Your task to perform on an android device: Go to battery settings Image 0: 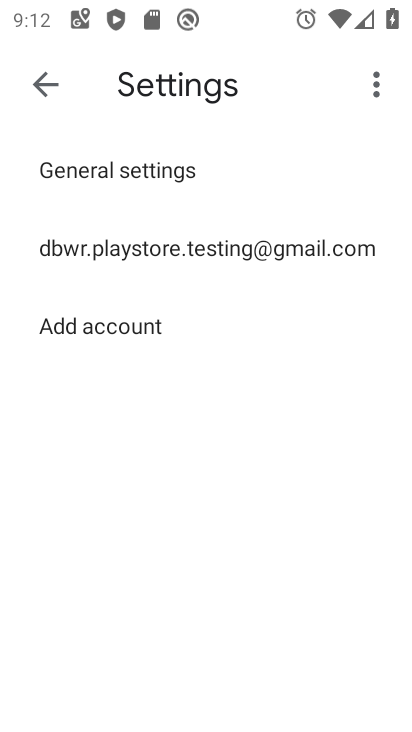
Step 0: press home button
Your task to perform on an android device: Go to battery settings Image 1: 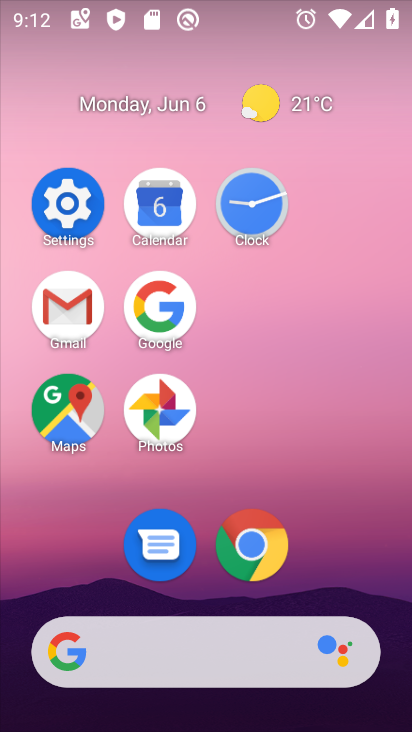
Step 1: click (66, 229)
Your task to perform on an android device: Go to battery settings Image 2: 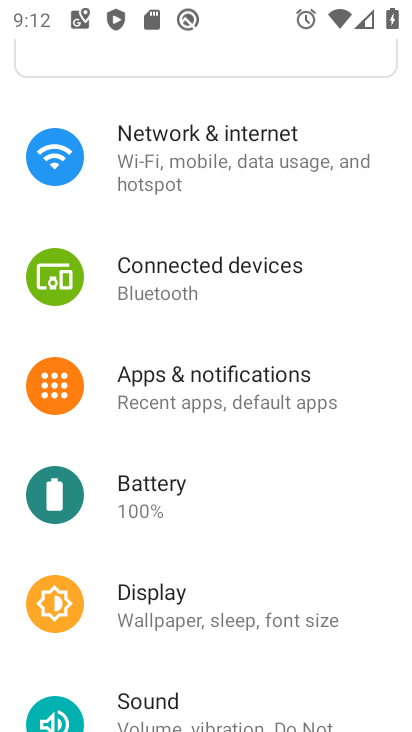
Step 2: click (208, 495)
Your task to perform on an android device: Go to battery settings Image 3: 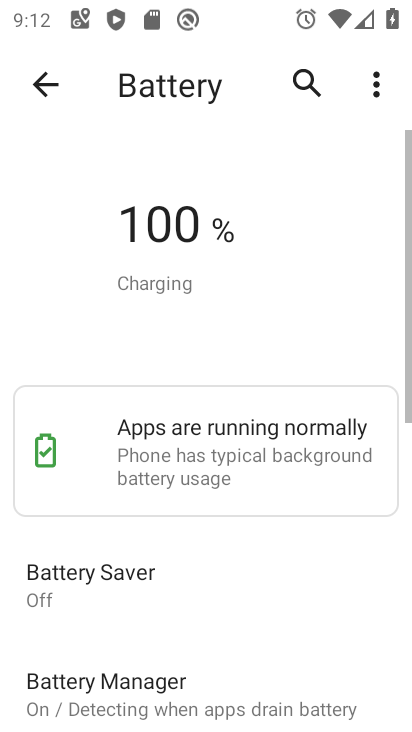
Step 3: task complete